Your task to perform on an android device: Go to wifi settings Image 0: 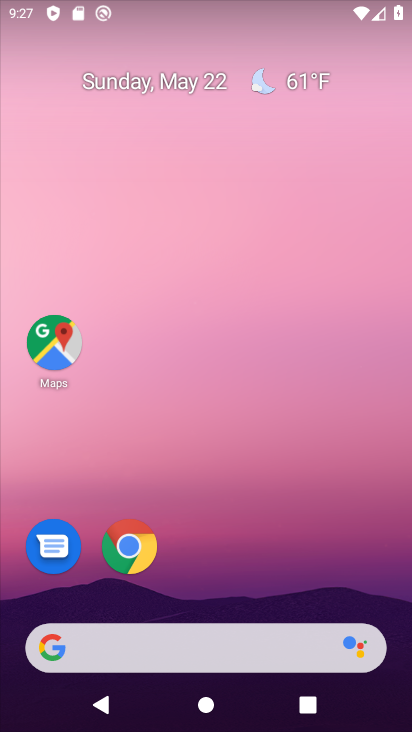
Step 0: drag from (178, 622) to (177, 233)
Your task to perform on an android device: Go to wifi settings Image 1: 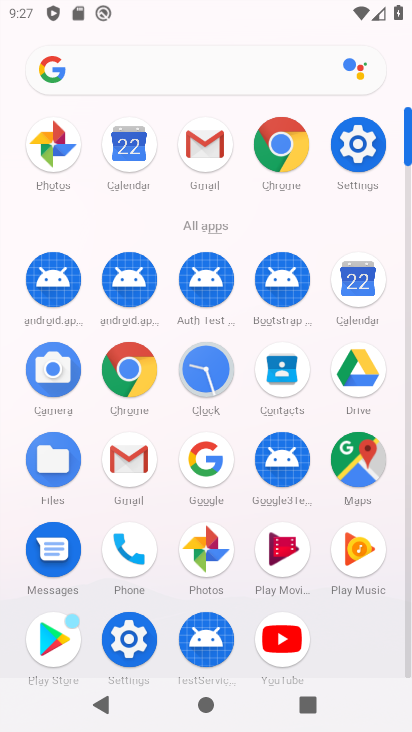
Step 1: click (357, 164)
Your task to perform on an android device: Go to wifi settings Image 2: 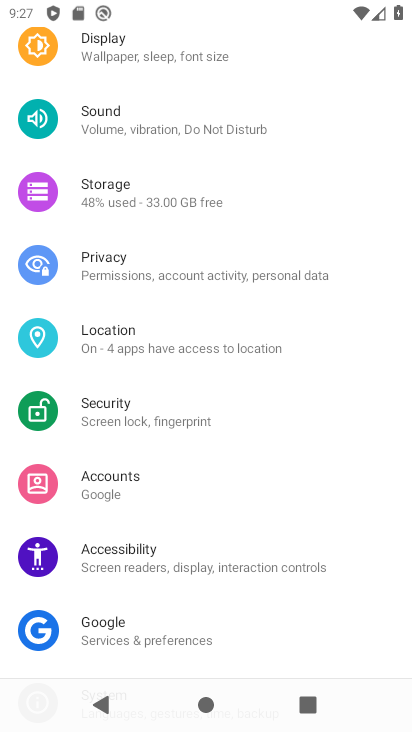
Step 2: drag from (207, 126) to (198, 552)
Your task to perform on an android device: Go to wifi settings Image 3: 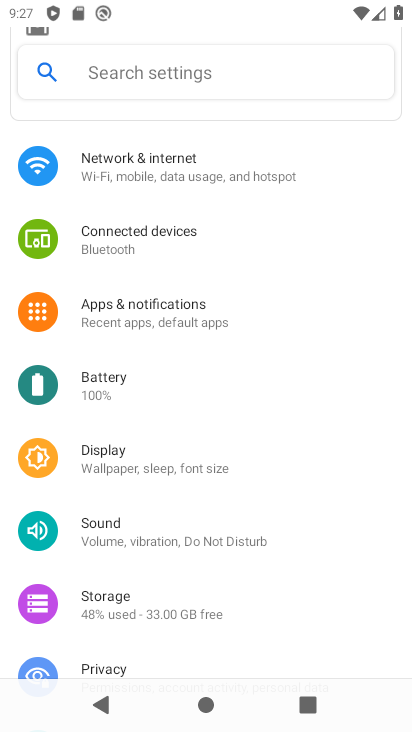
Step 3: click (179, 189)
Your task to perform on an android device: Go to wifi settings Image 4: 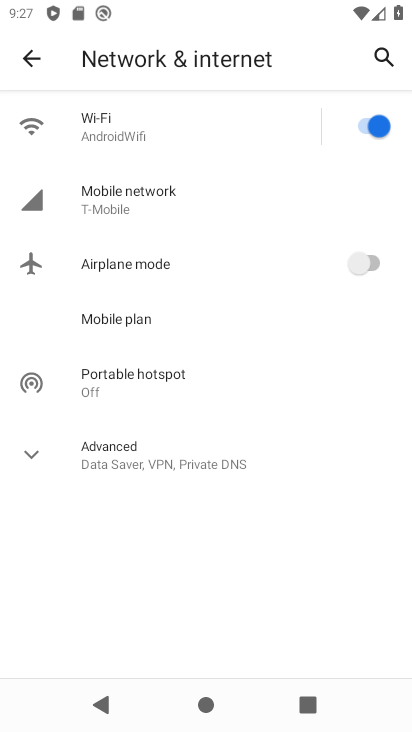
Step 4: click (135, 118)
Your task to perform on an android device: Go to wifi settings Image 5: 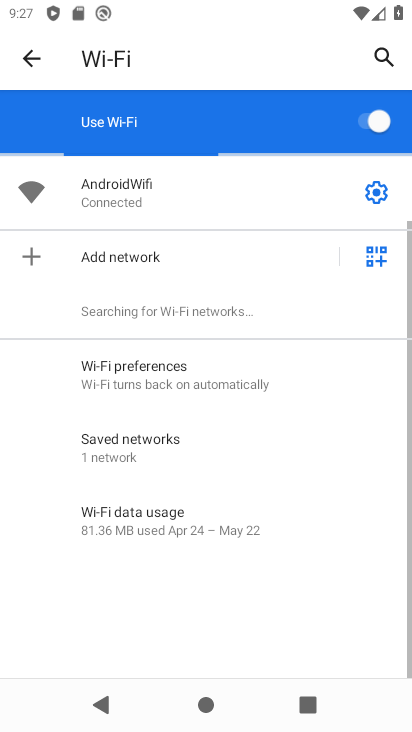
Step 5: task complete